Your task to perform on an android device: turn off airplane mode Image 0: 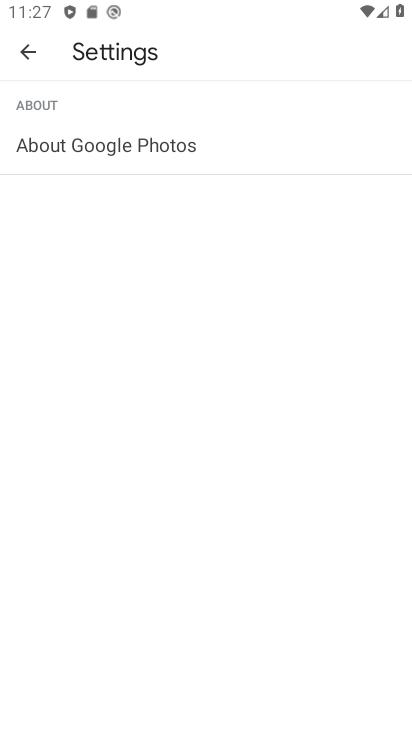
Step 0: drag from (291, 4) to (219, 704)
Your task to perform on an android device: turn off airplane mode Image 1: 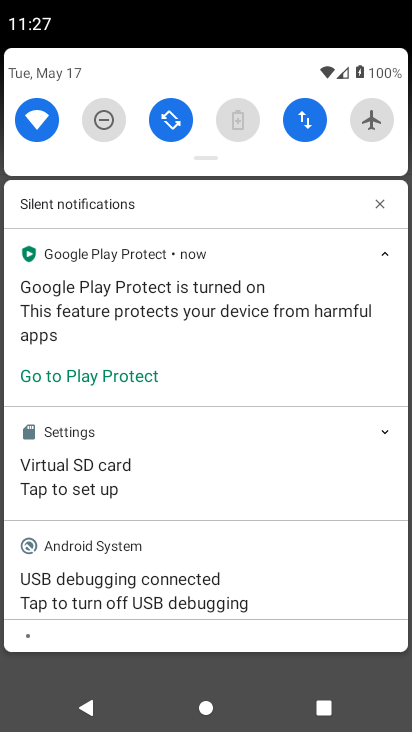
Step 1: task complete